Your task to perform on an android device: uninstall "DoorDash - Dasher" Image 0: 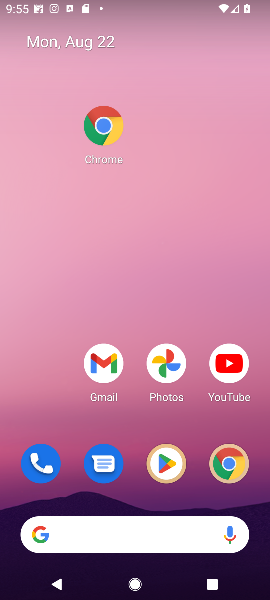
Step 0: click (161, 467)
Your task to perform on an android device: uninstall "DoorDash - Dasher" Image 1: 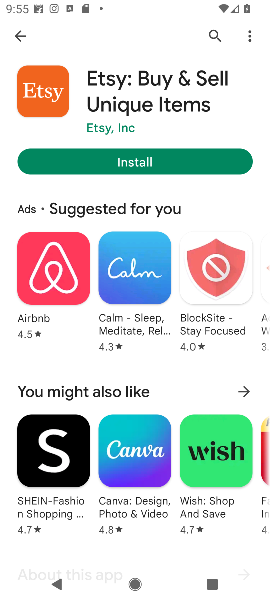
Step 1: click (17, 32)
Your task to perform on an android device: uninstall "DoorDash - Dasher" Image 2: 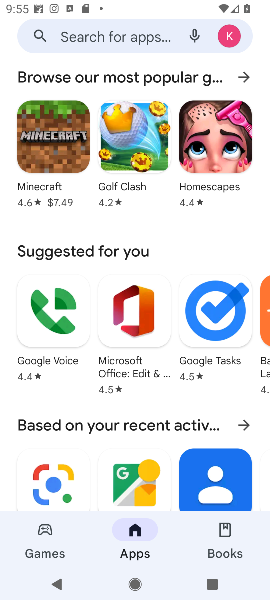
Step 2: click (101, 35)
Your task to perform on an android device: uninstall "DoorDash - Dasher" Image 3: 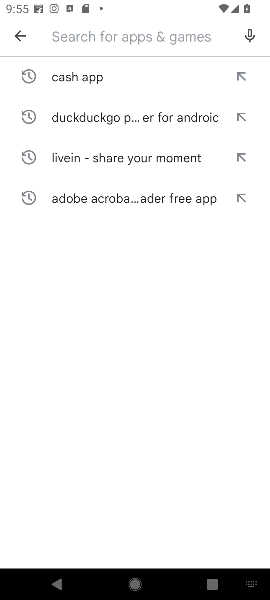
Step 3: type "DoorDash - Dasher"
Your task to perform on an android device: uninstall "DoorDash - Dasher" Image 4: 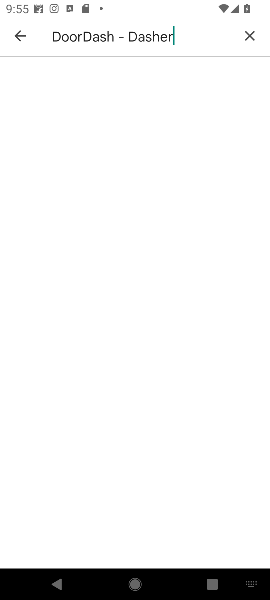
Step 4: click (247, 35)
Your task to perform on an android device: uninstall "DoorDash - Dasher" Image 5: 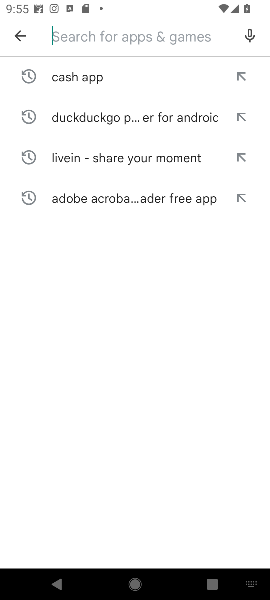
Step 5: click (20, 34)
Your task to perform on an android device: uninstall "DoorDash - Dasher" Image 6: 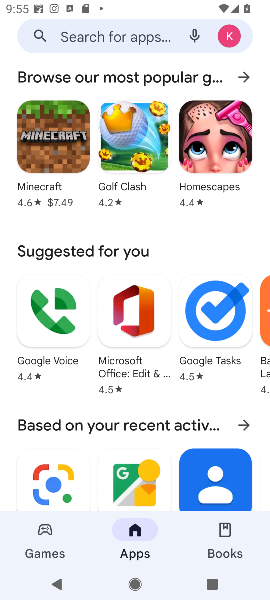
Step 6: click (100, 34)
Your task to perform on an android device: uninstall "DoorDash - Dasher" Image 7: 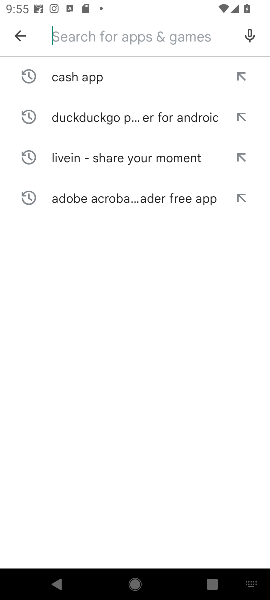
Step 7: type "DoorDash - Dasher"
Your task to perform on an android device: uninstall "DoorDash - Dasher" Image 8: 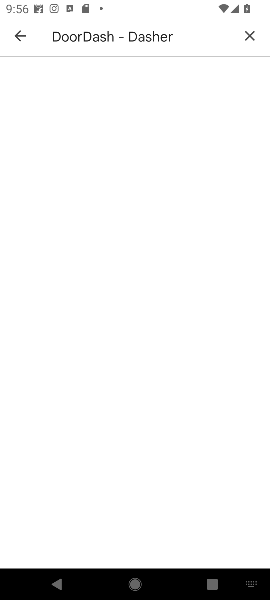
Step 8: click (21, 31)
Your task to perform on an android device: uninstall "DoorDash - Dasher" Image 9: 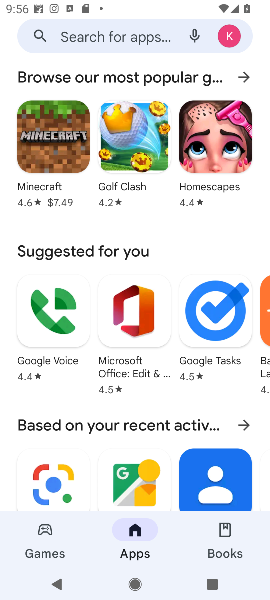
Step 9: click (123, 30)
Your task to perform on an android device: uninstall "DoorDash - Dasher" Image 10: 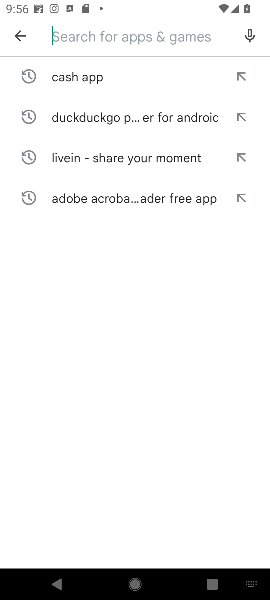
Step 10: type "DoorDash - Dasher"
Your task to perform on an android device: uninstall "DoorDash - Dasher" Image 11: 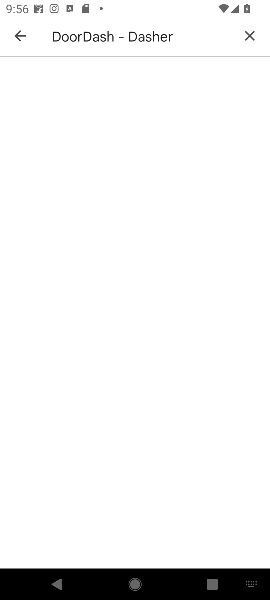
Step 11: task complete